Your task to perform on an android device: turn on javascript in the chrome app Image 0: 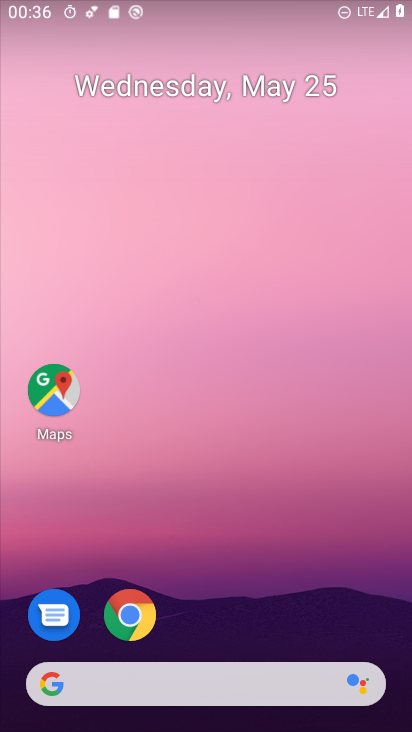
Step 0: drag from (257, 708) to (351, 81)
Your task to perform on an android device: turn on javascript in the chrome app Image 1: 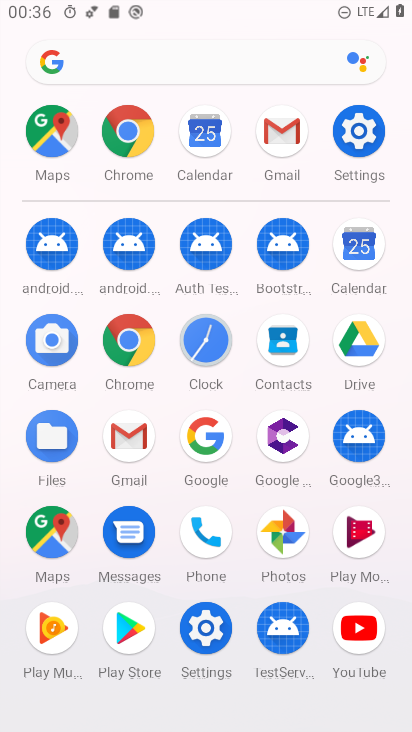
Step 1: click (133, 142)
Your task to perform on an android device: turn on javascript in the chrome app Image 2: 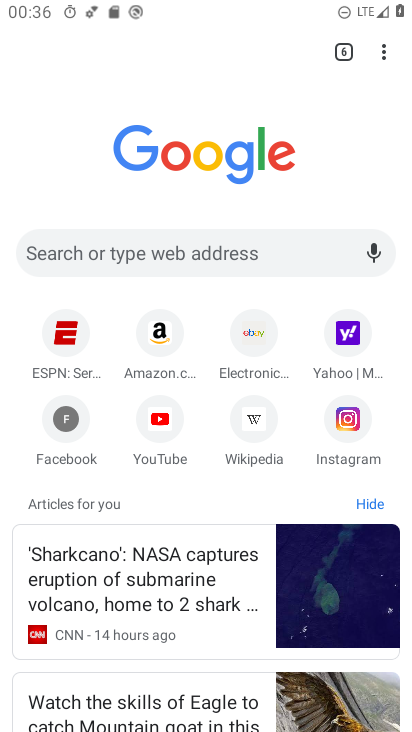
Step 2: click (386, 59)
Your task to perform on an android device: turn on javascript in the chrome app Image 3: 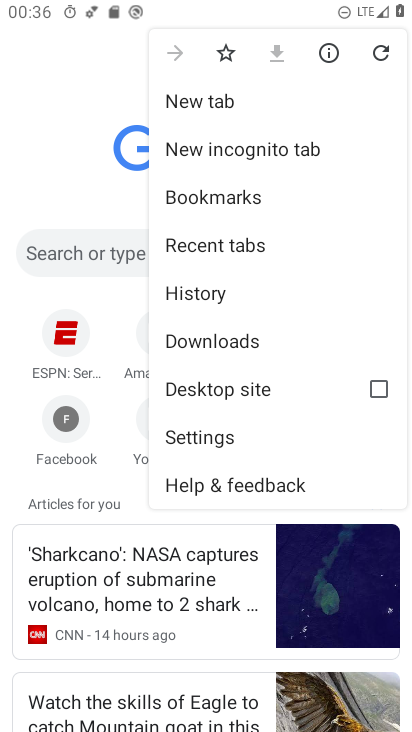
Step 3: click (221, 429)
Your task to perform on an android device: turn on javascript in the chrome app Image 4: 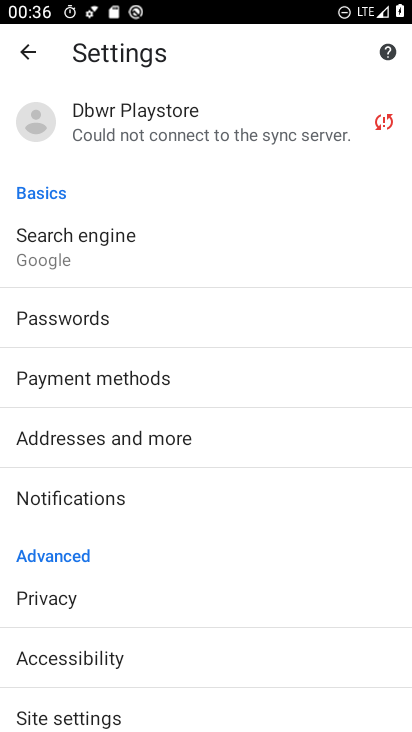
Step 4: click (70, 703)
Your task to perform on an android device: turn on javascript in the chrome app Image 5: 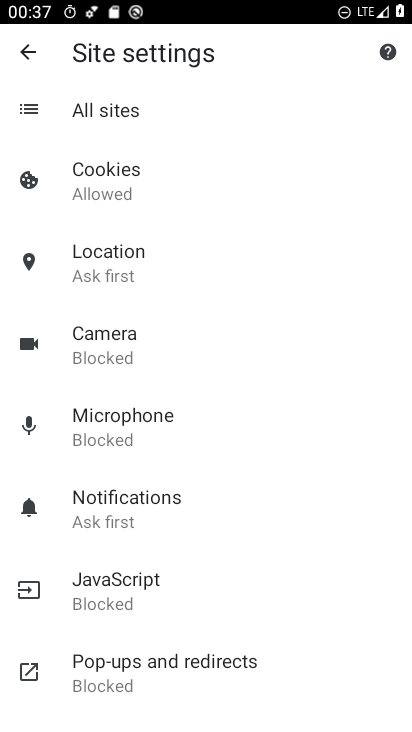
Step 5: click (116, 592)
Your task to perform on an android device: turn on javascript in the chrome app Image 6: 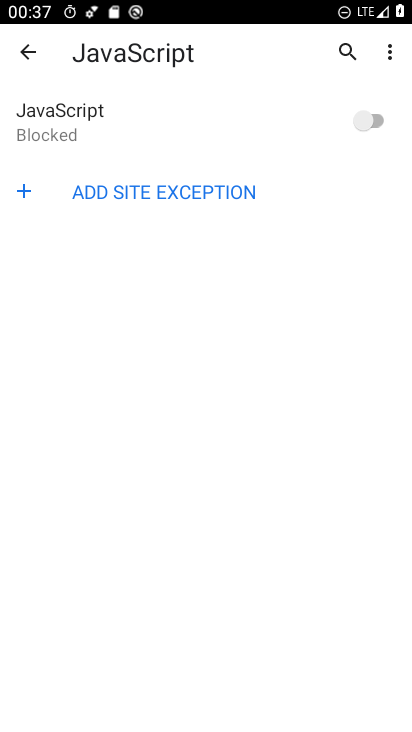
Step 6: click (385, 117)
Your task to perform on an android device: turn on javascript in the chrome app Image 7: 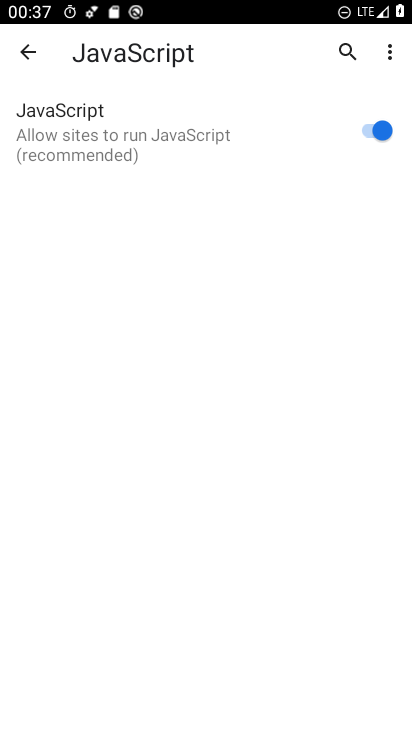
Step 7: task complete